Your task to perform on an android device: turn on priority inbox in the gmail app Image 0: 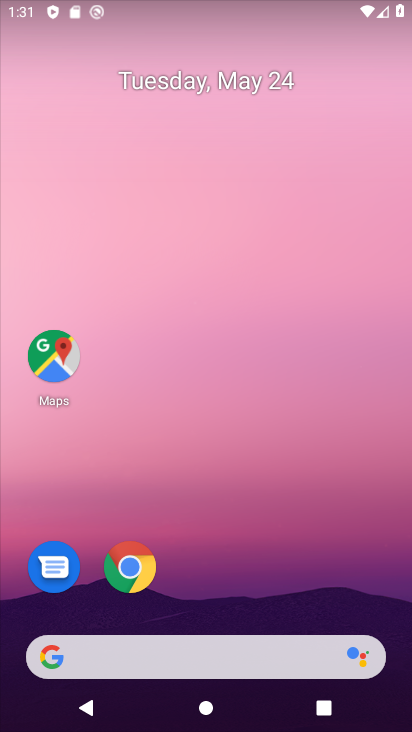
Step 0: drag from (200, 601) to (214, 325)
Your task to perform on an android device: turn on priority inbox in the gmail app Image 1: 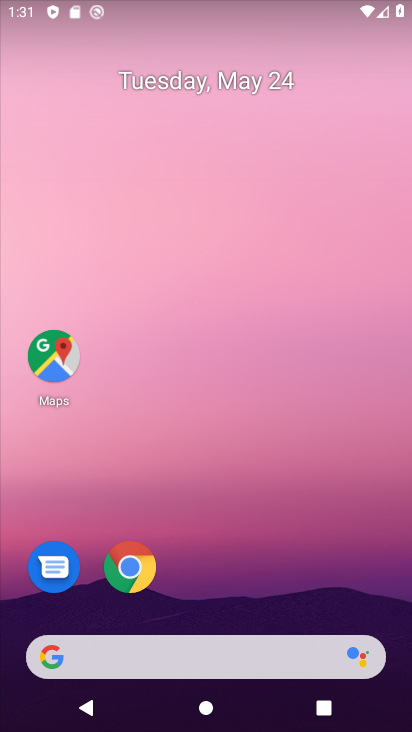
Step 1: drag from (233, 637) to (397, 16)
Your task to perform on an android device: turn on priority inbox in the gmail app Image 2: 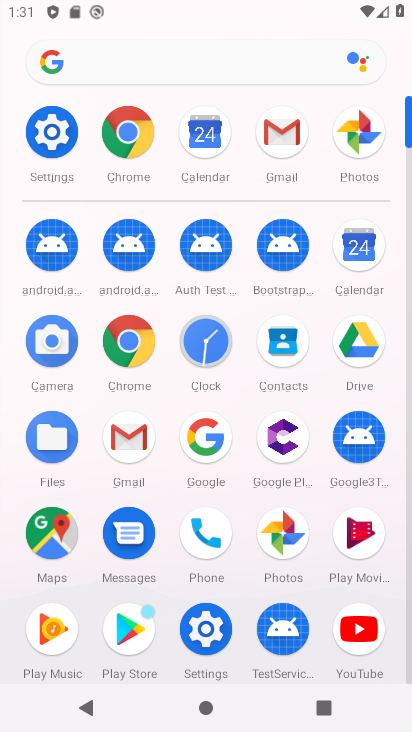
Step 2: click (139, 444)
Your task to perform on an android device: turn on priority inbox in the gmail app Image 3: 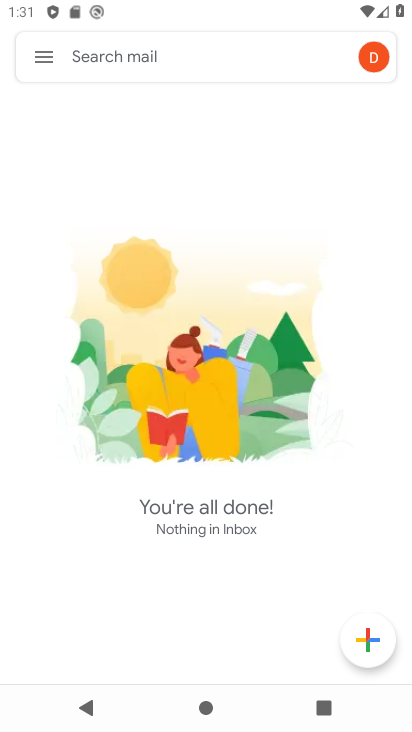
Step 3: click (46, 53)
Your task to perform on an android device: turn on priority inbox in the gmail app Image 4: 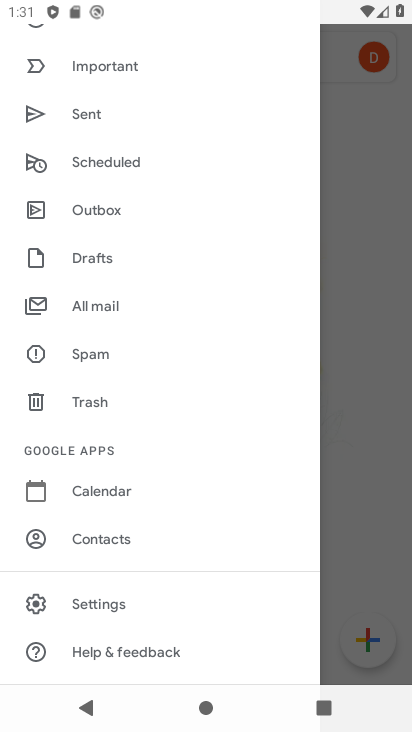
Step 4: click (103, 605)
Your task to perform on an android device: turn on priority inbox in the gmail app Image 5: 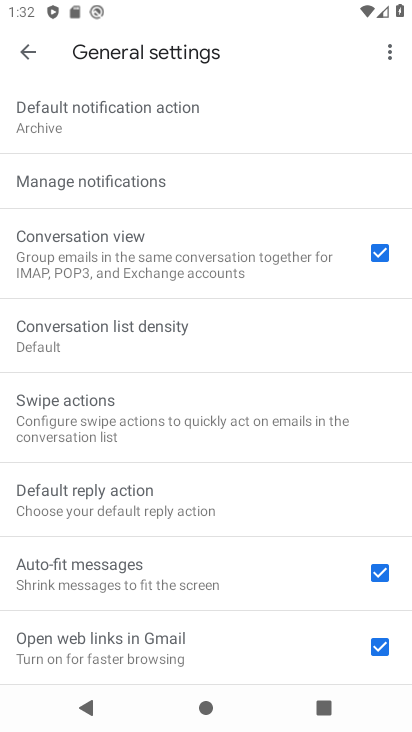
Step 5: click (34, 41)
Your task to perform on an android device: turn on priority inbox in the gmail app Image 6: 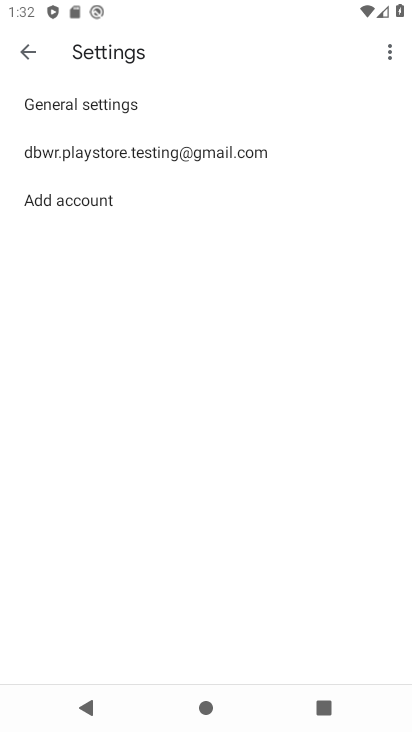
Step 6: click (79, 143)
Your task to perform on an android device: turn on priority inbox in the gmail app Image 7: 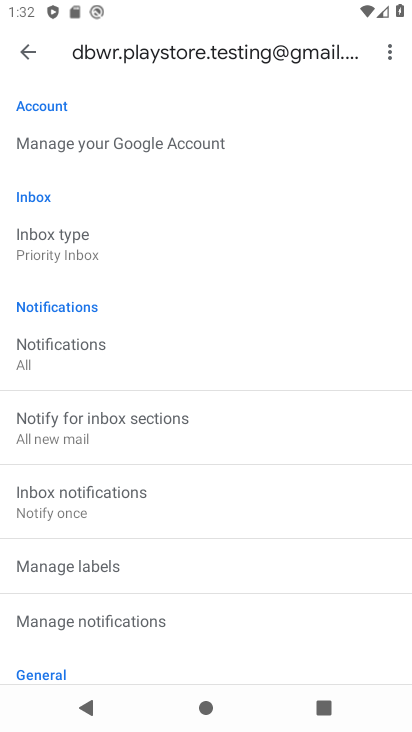
Step 7: task complete